Your task to perform on an android device: Open Maps and search for coffee Image 0: 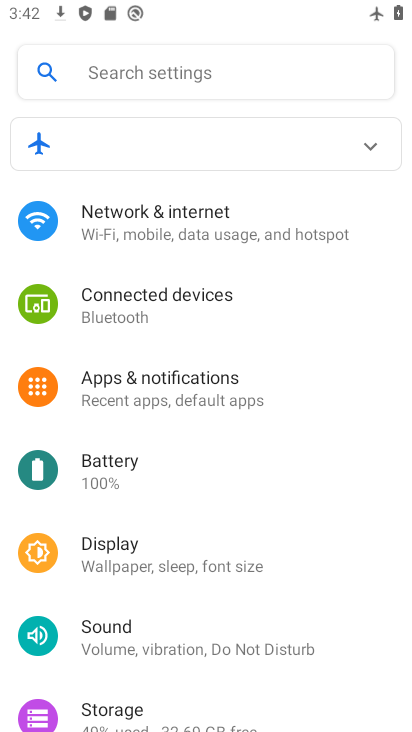
Step 0: press home button
Your task to perform on an android device: Open Maps and search for coffee Image 1: 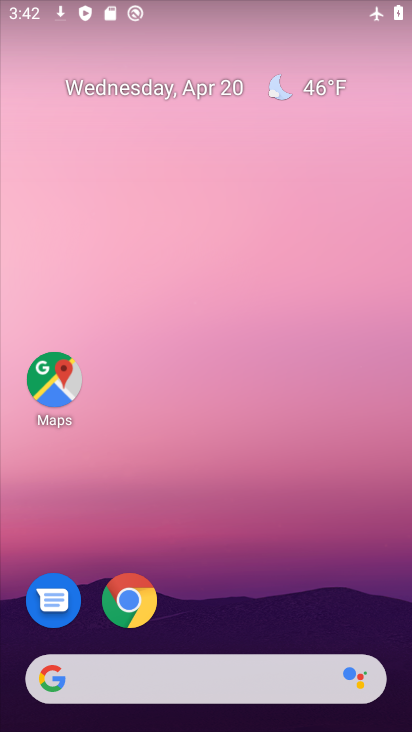
Step 1: click (60, 386)
Your task to perform on an android device: Open Maps and search for coffee Image 2: 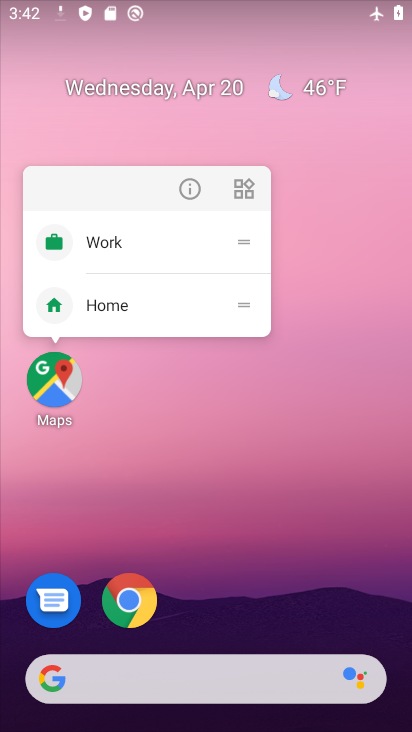
Step 2: click (61, 385)
Your task to perform on an android device: Open Maps and search for coffee Image 3: 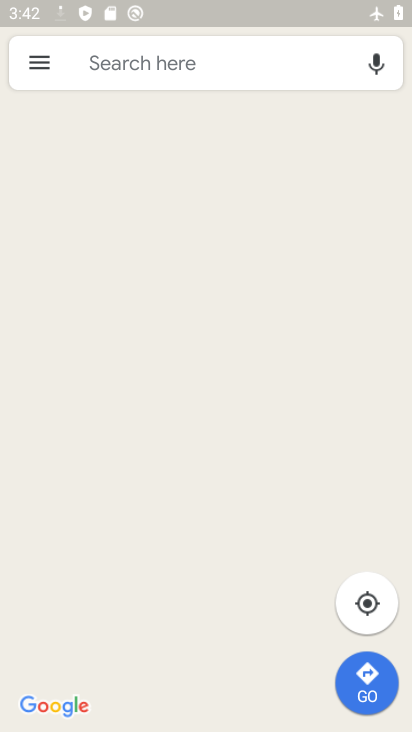
Step 3: click (193, 69)
Your task to perform on an android device: Open Maps and search for coffee Image 4: 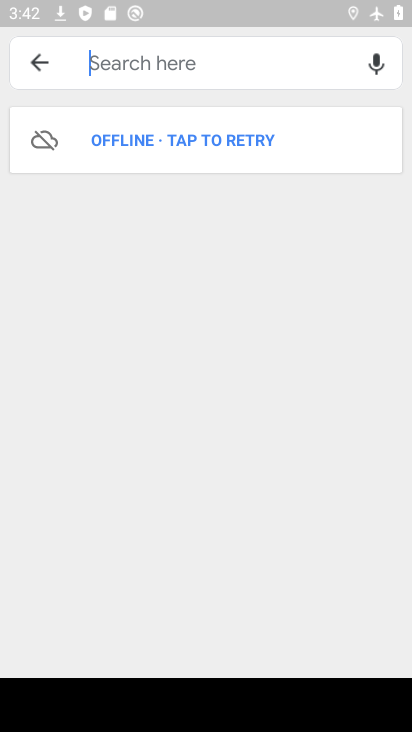
Step 4: type "coffee"
Your task to perform on an android device: Open Maps and search for coffee Image 5: 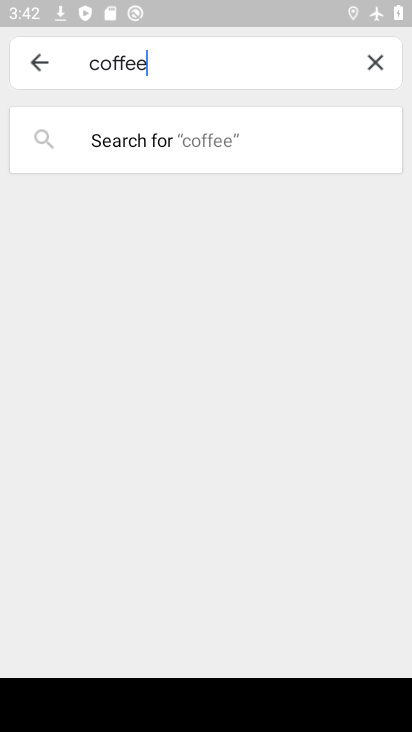
Step 5: task complete